Your task to perform on an android device: Open the calendar and show me this week's events Image 0: 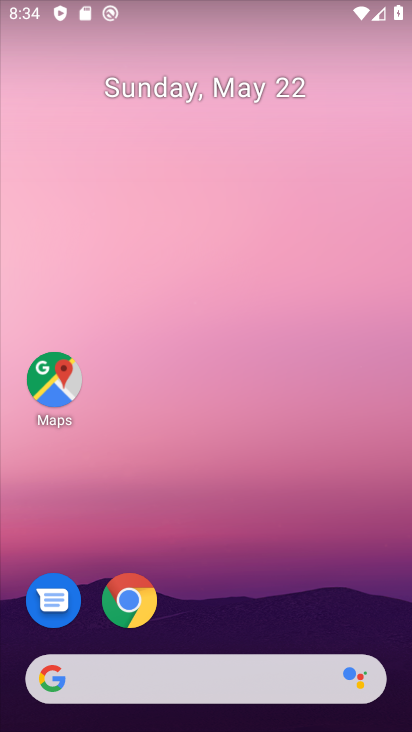
Step 0: drag from (212, 390) to (282, 85)
Your task to perform on an android device: Open the calendar and show me this week's events Image 1: 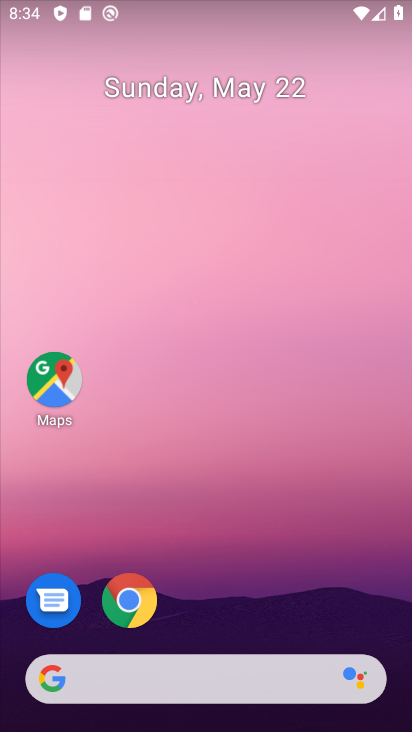
Step 1: drag from (193, 627) to (268, 75)
Your task to perform on an android device: Open the calendar and show me this week's events Image 2: 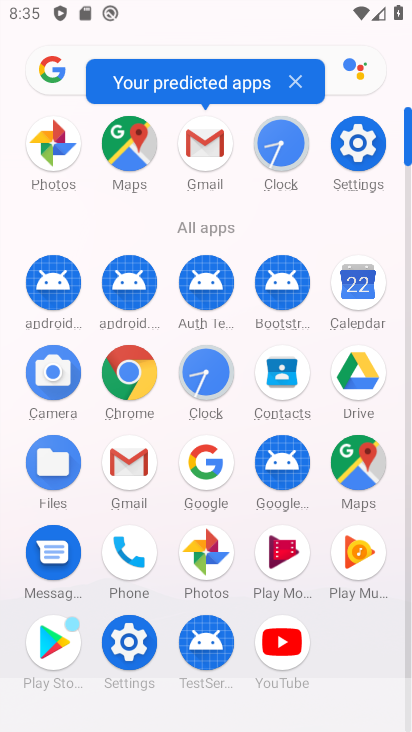
Step 2: click (350, 316)
Your task to perform on an android device: Open the calendar and show me this week's events Image 3: 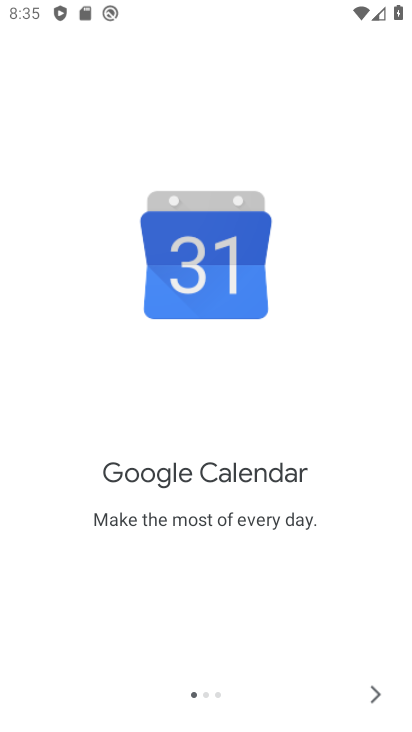
Step 3: click (374, 690)
Your task to perform on an android device: Open the calendar and show me this week's events Image 4: 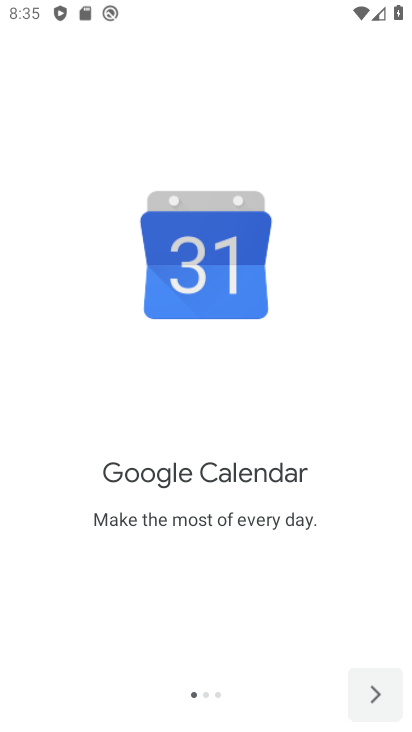
Step 4: click (374, 690)
Your task to perform on an android device: Open the calendar and show me this week's events Image 5: 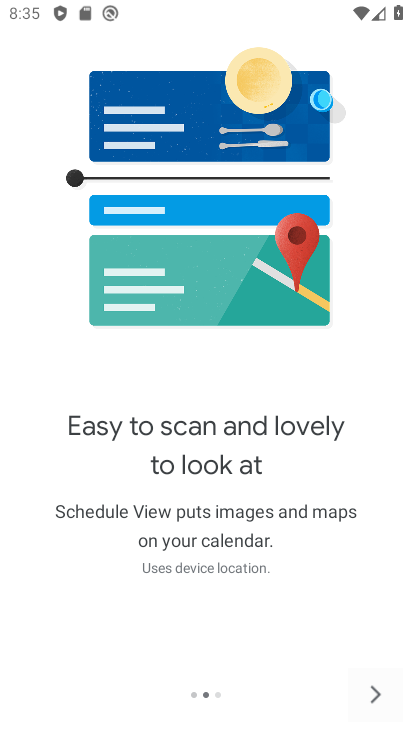
Step 5: click (374, 690)
Your task to perform on an android device: Open the calendar and show me this week's events Image 6: 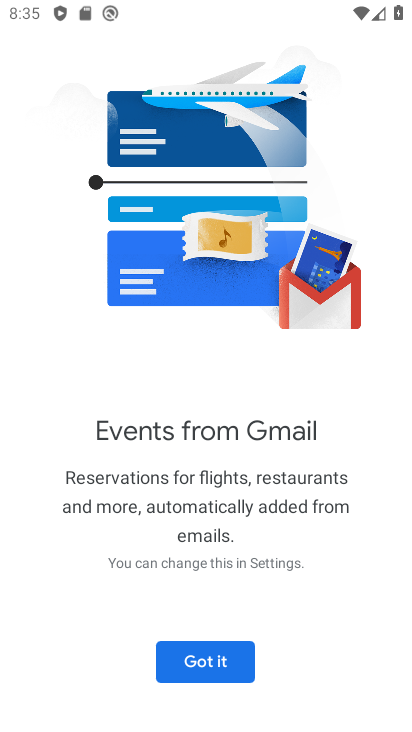
Step 6: click (239, 669)
Your task to perform on an android device: Open the calendar and show me this week's events Image 7: 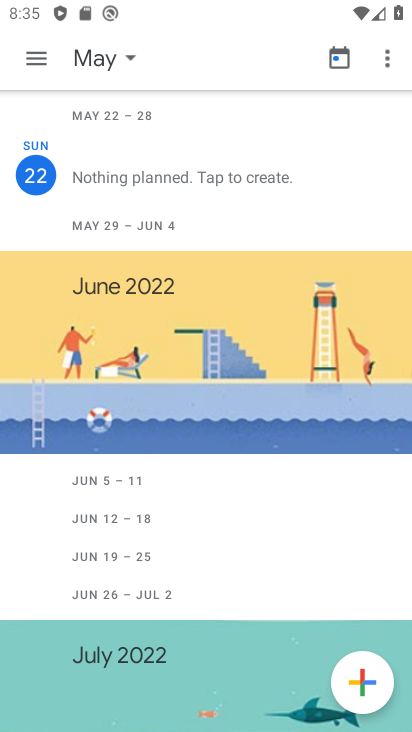
Step 7: click (33, 48)
Your task to perform on an android device: Open the calendar and show me this week's events Image 8: 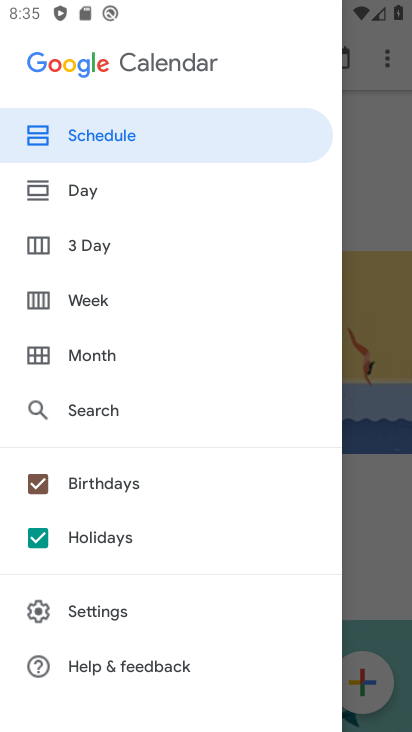
Step 8: click (111, 300)
Your task to perform on an android device: Open the calendar and show me this week's events Image 9: 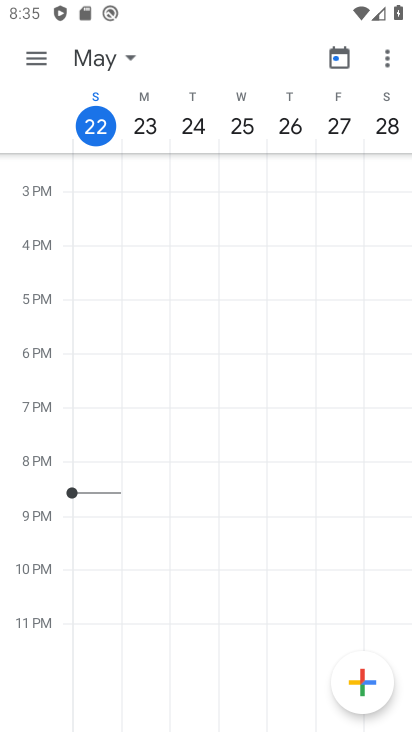
Step 9: task complete